Your task to perform on an android device: Find coffee shops on Maps Image 0: 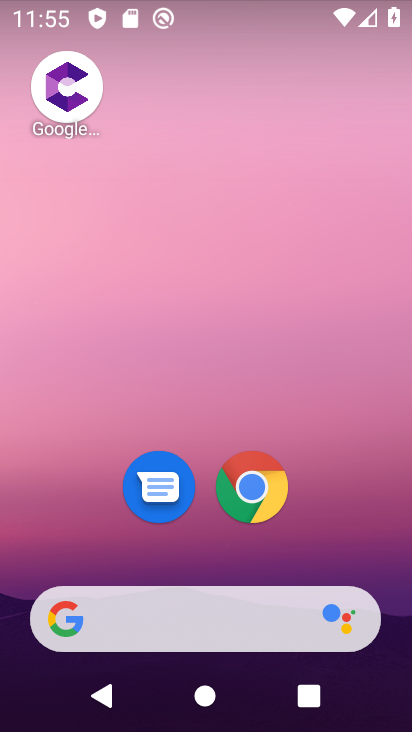
Step 0: drag from (367, 468) to (366, 163)
Your task to perform on an android device: Find coffee shops on Maps Image 1: 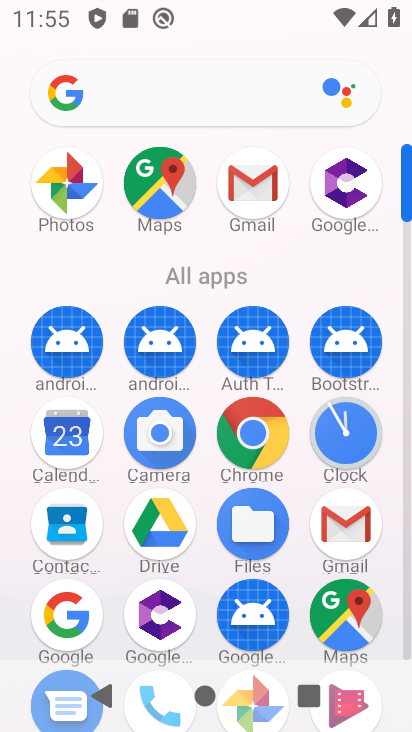
Step 1: click (346, 633)
Your task to perform on an android device: Find coffee shops on Maps Image 2: 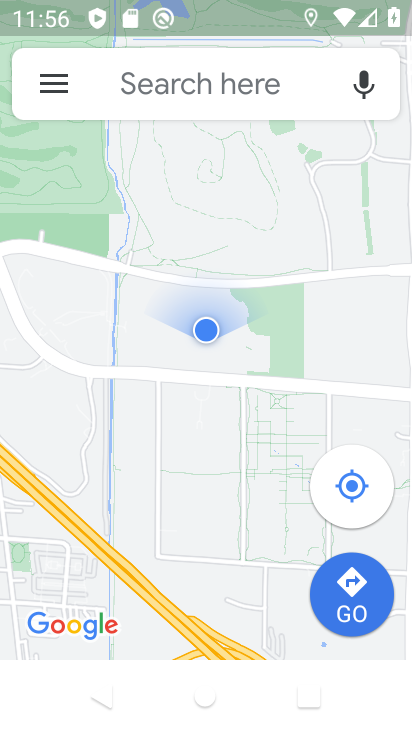
Step 2: click (216, 85)
Your task to perform on an android device: Find coffee shops on Maps Image 3: 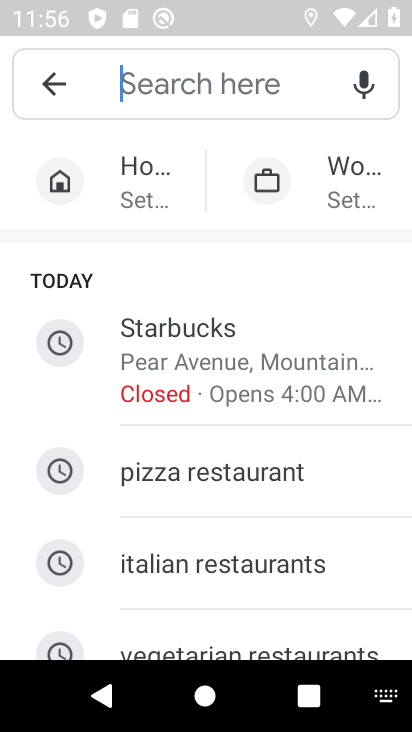
Step 3: type "coffee"
Your task to perform on an android device: Find coffee shops on Maps Image 4: 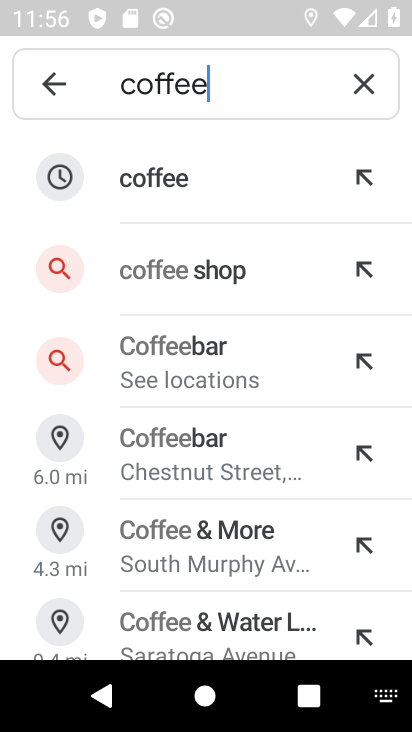
Step 4: click (178, 185)
Your task to perform on an android device: Find coffee shops on Maps Image 5: 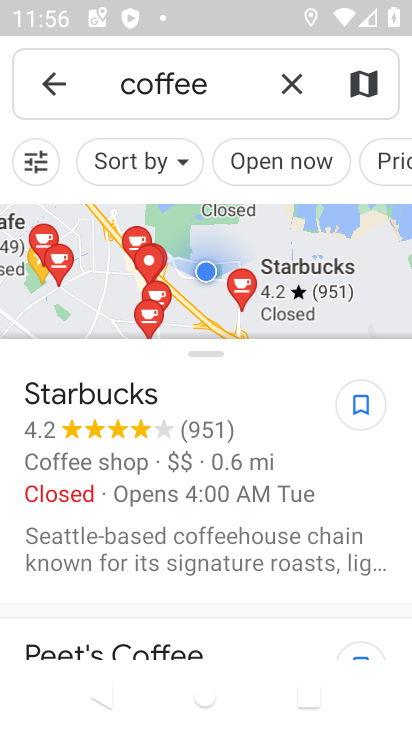
Step 5: task complete